Your task to perform on an android device: open app "PUBG MOBILE" (install if not already installed) and go to login screen Image 0: 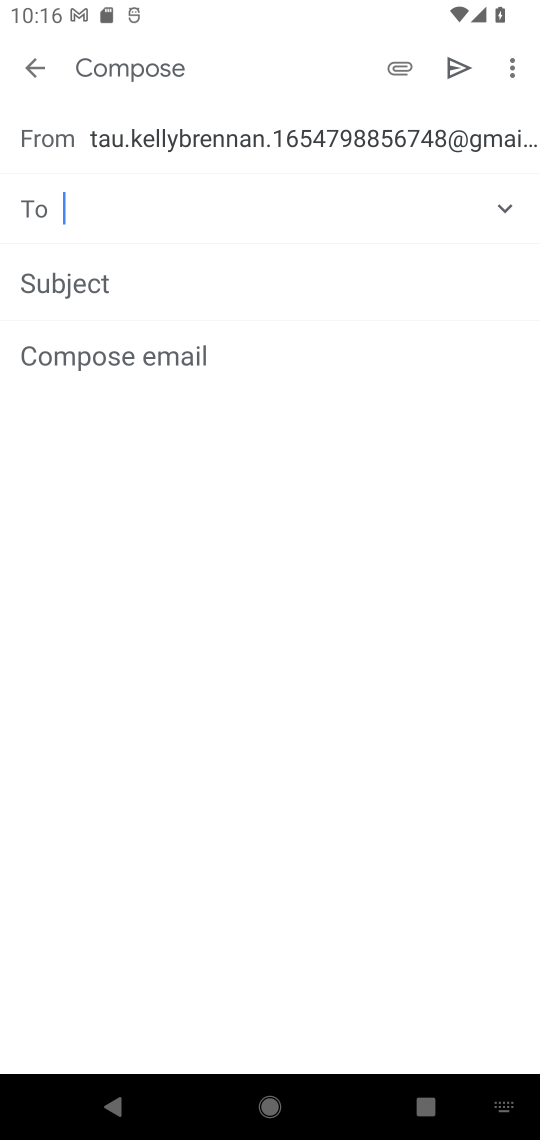
Step 0: task complete